Your task to perform on an android device: open a new tab in the chrome app Image 0: 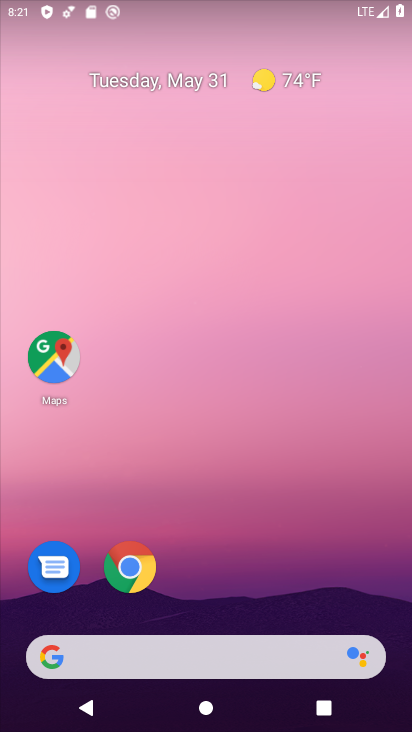
Step 0: drag from (264, 672) to (193, 58)
Your task to perform on an android device: open a new tab in the chrome app Image 1: 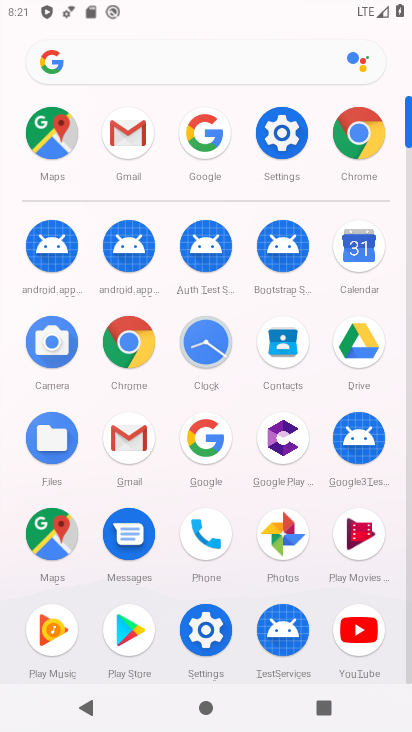
Step 1: click (355, 125)
Your task to perform on an android device: open a new tab in the chrome app Image 2: 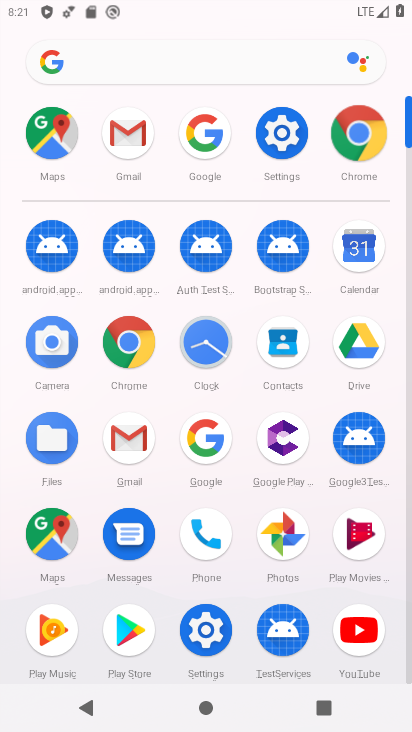
Step 2: click (355, 125)
Your task to perform on an android device: open a new tab in the chrome app Image 3: 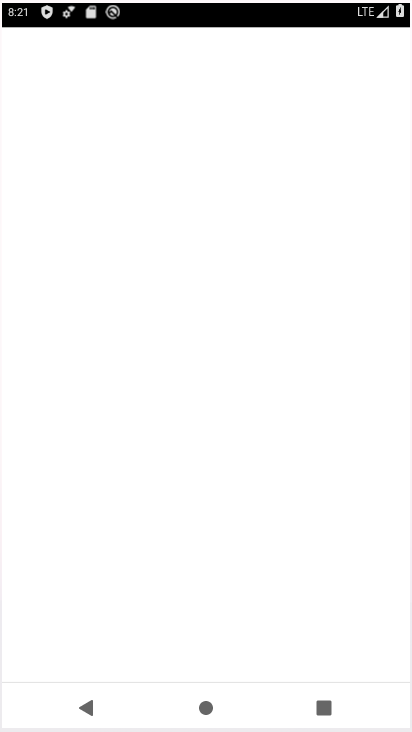
Step 3: click (356, 126)
Your task to perform on an android device: open a new tab in the chrome app Image 4: 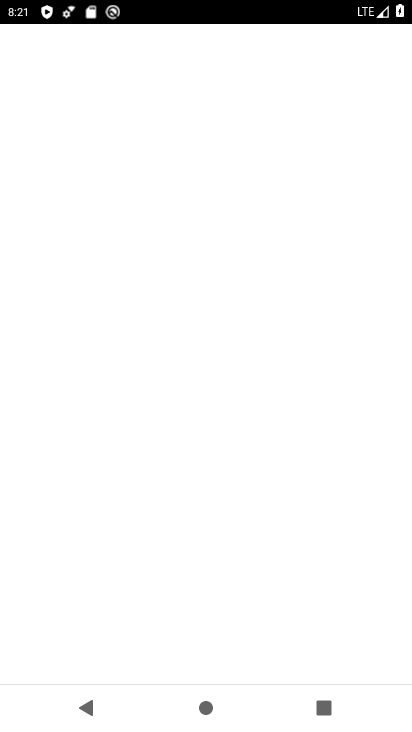
Step 4: click (356, 126)
Your task to perform on an android device: open a new tab in the chrome app Image 5: 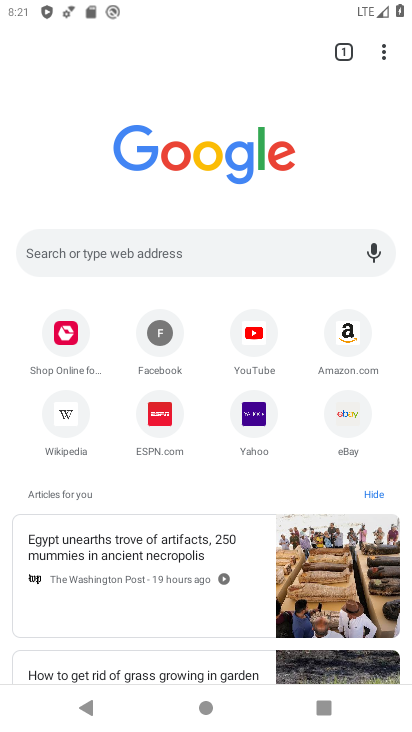
Step 5: task complete